Your task to perform on an android device: open app "PUBG MOBILE" Image 0: 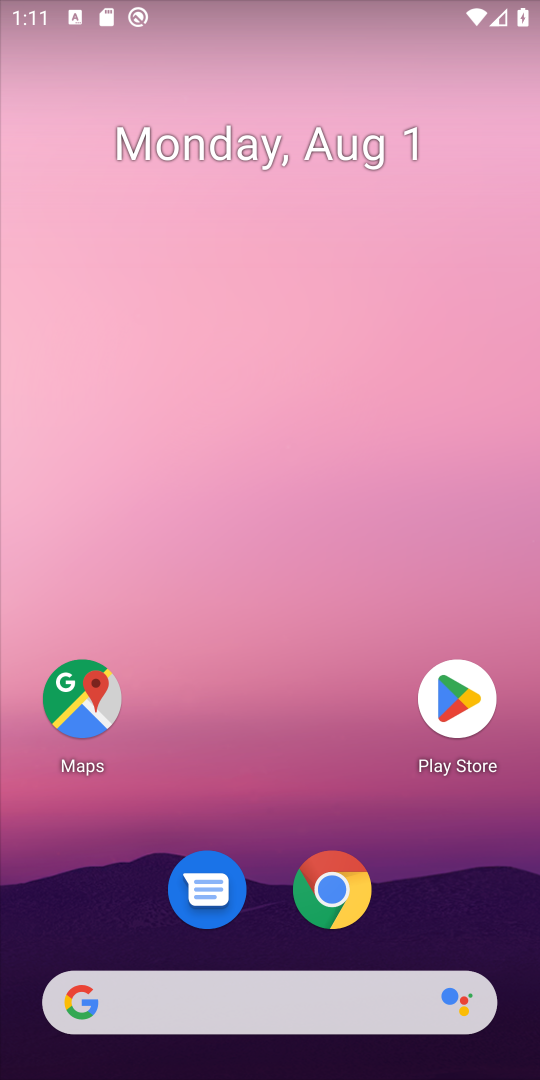
Step 0: click (459, 705)
Your task to perform on an android device: open app "PUBG MOBILE" Image 1: 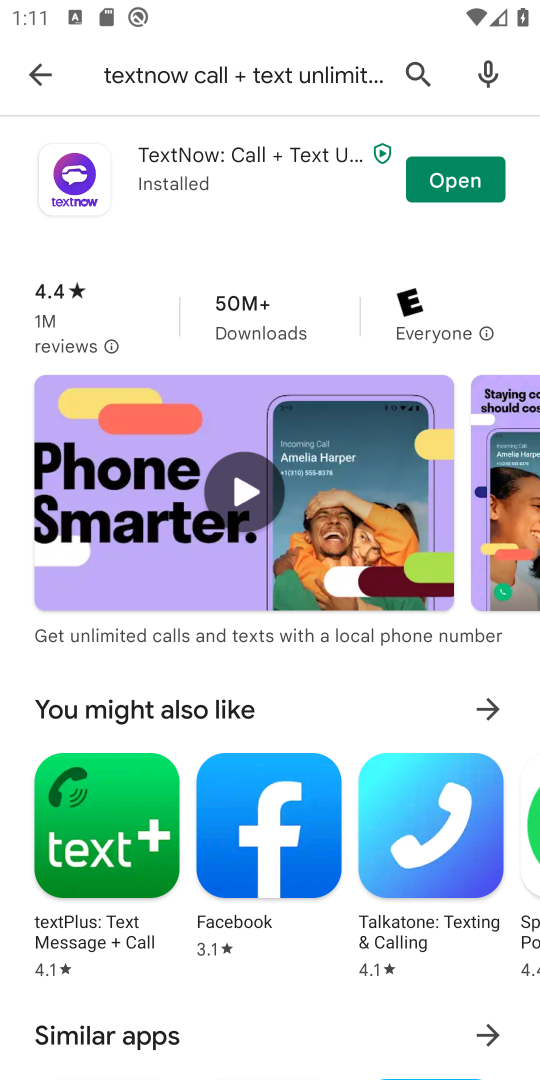
Step 1: click (415, 59)
Your task to perform on an android device: open app "PUBG MOBILE" Image 2: 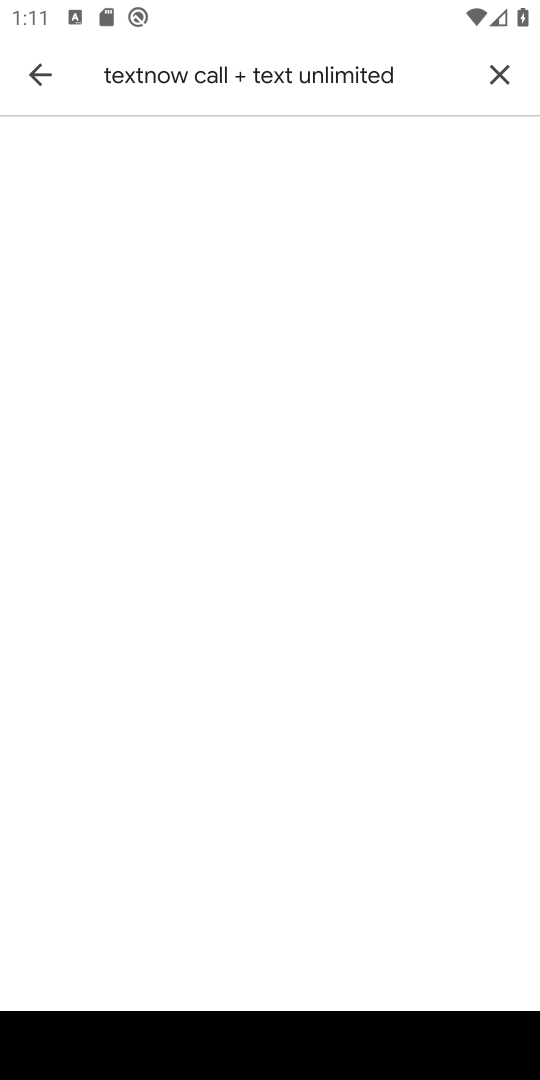
Step 2: click (489, 72)
Your task to perform on an android device: open app "PUBG MOBILE" Image 3: 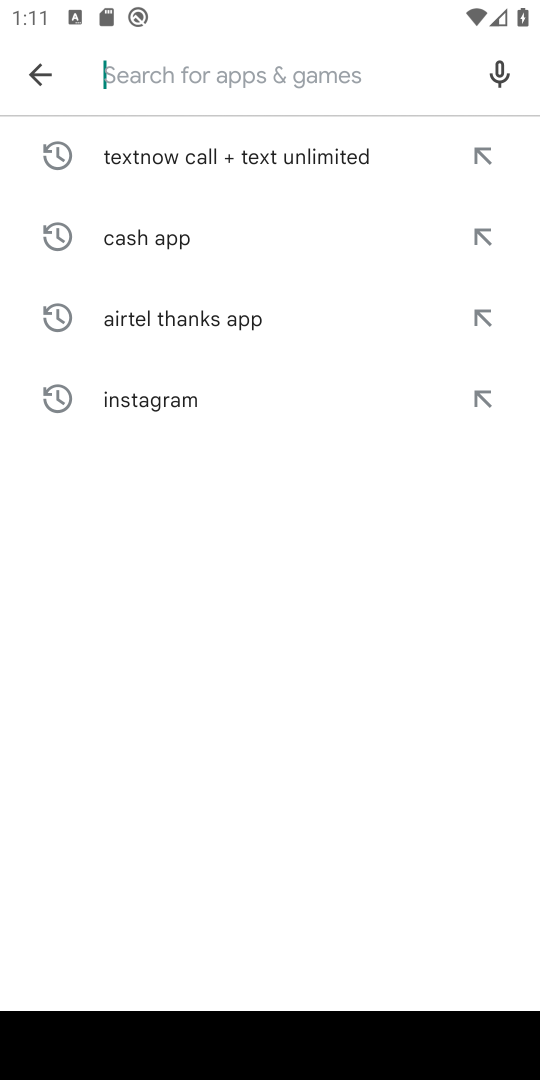
Step 3: type "PUBG MOBILE"
Your task to perform on an android device: open app "PUBG MOBILE" Image 4: 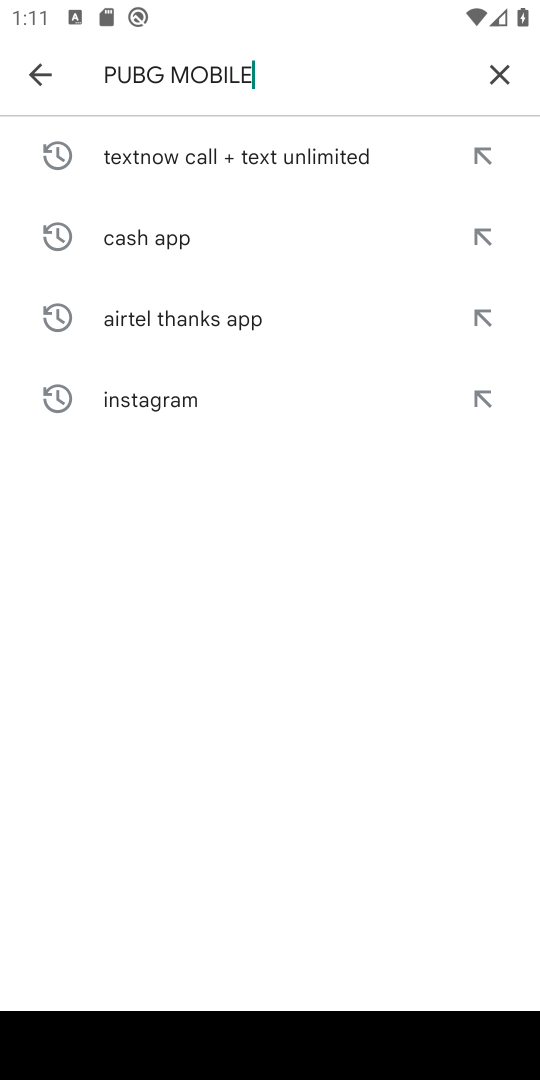
Step 4: type ""
Your task to perform on an android device: open app "PUBG MOBILE" Image 5: 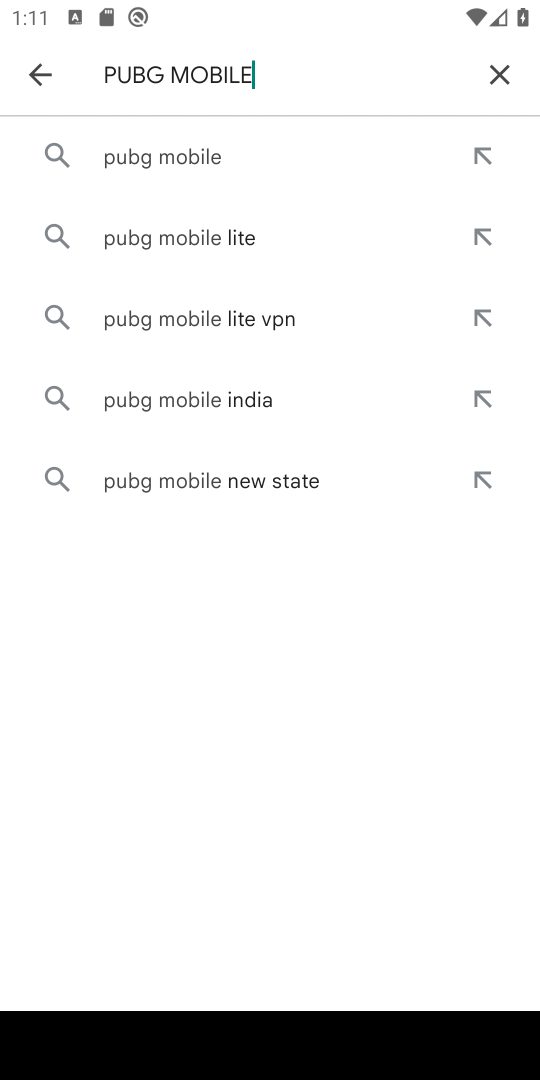
Step 5: click (214, 141)
Your task to perform on an android device: open app "PUBG MOBILE" Image 6: 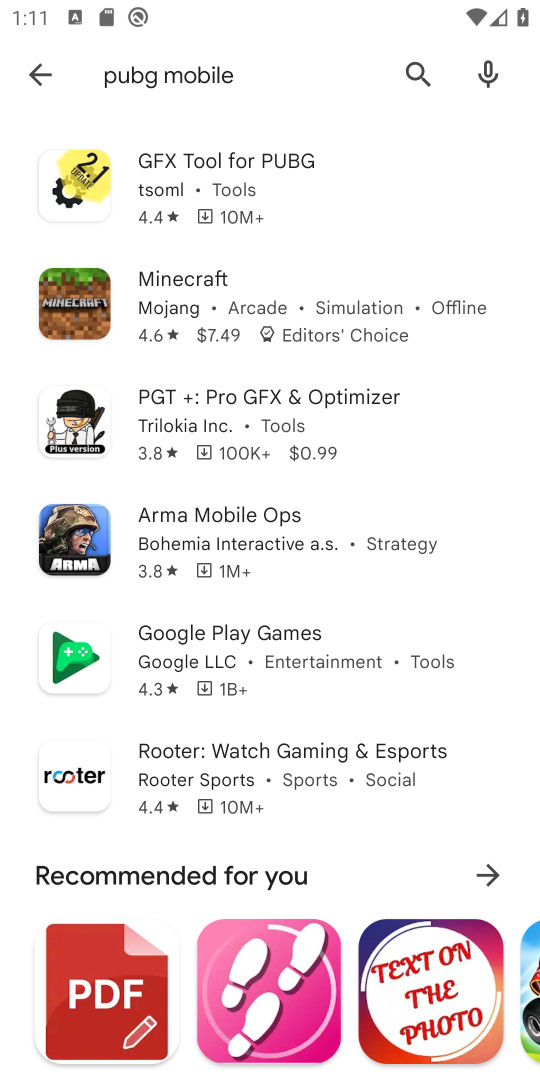
Step 6: task complete